Your task to perform on an android device: Set the phone to "Do not disturb". Image 0: 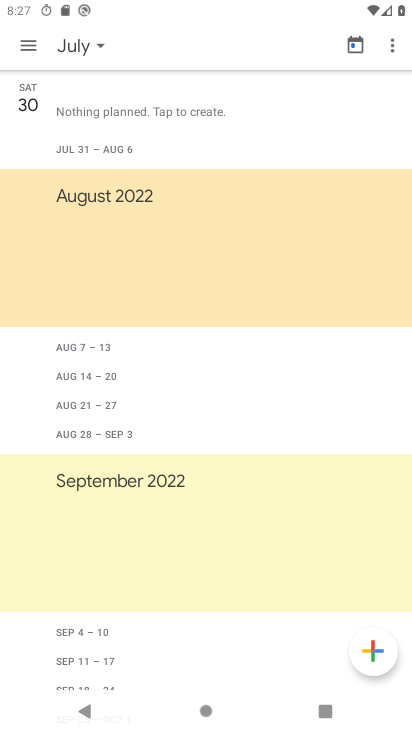
Step 0: press home button
Your task to perform on an android device: Set the phone to "Do not disturb". Image 1: 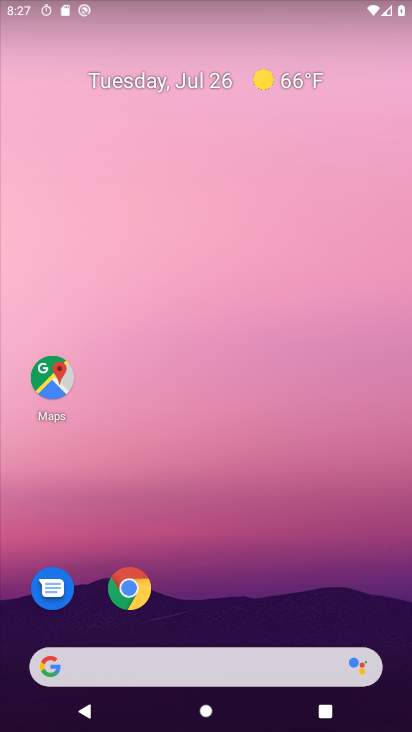
Step 1: drag from (235, 709) to (204, 176)
Your task to perform on an android device: Set the phone to "Do not disturb". Image 2: 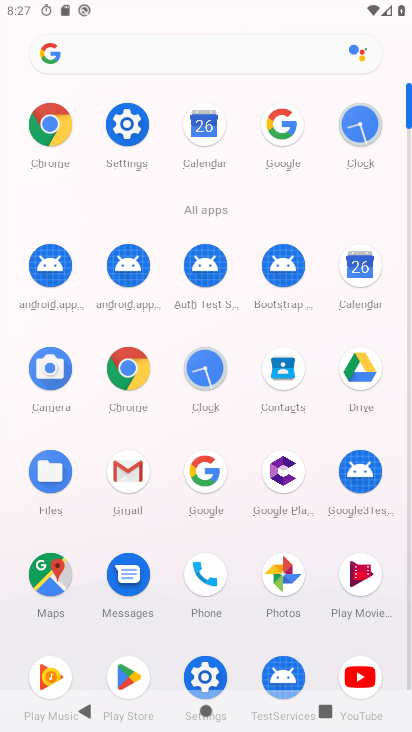
Step 2: click (117, 124)
Your task to perform on an android device: Set the phone to "Do not disturb". Image 3: 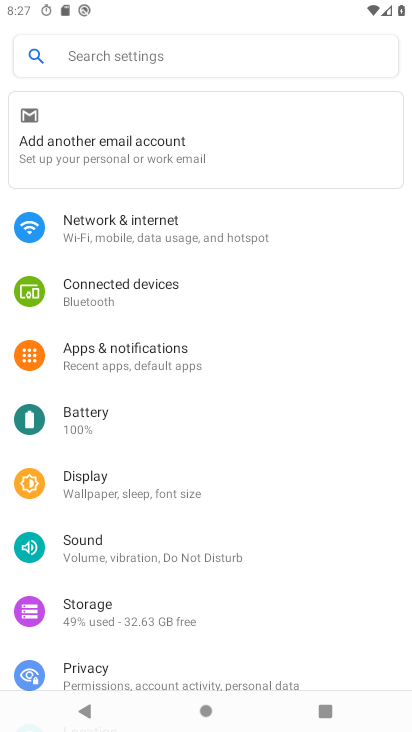
Step 3: click (134, 556)
Your task to perform on an android device: Set the phone to "Do not disturb". Image 4: 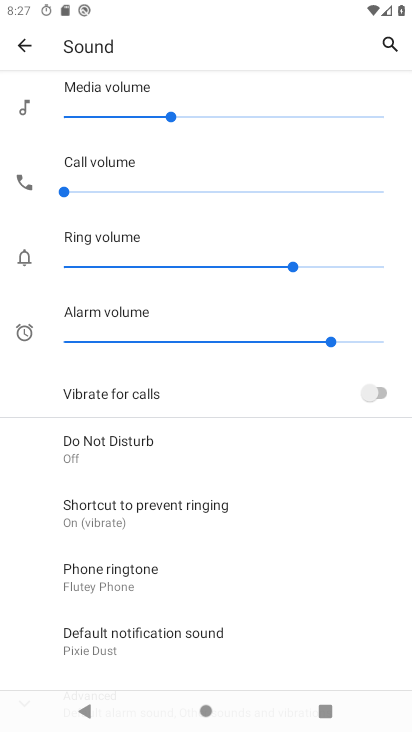
Step 4: click (77, 455)
Your task to perform on an android device: Set the phone to "Do not disturb". Image 5: 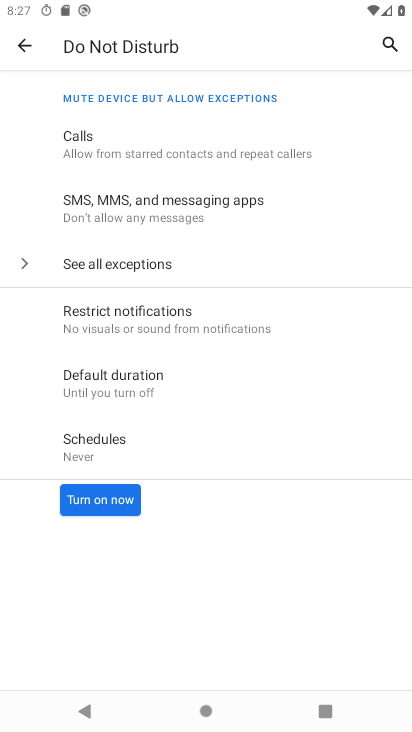
Step 5: click (91, 499)
Your task to perform on an android device: Set the phone to "Do not disturb". Image 6: 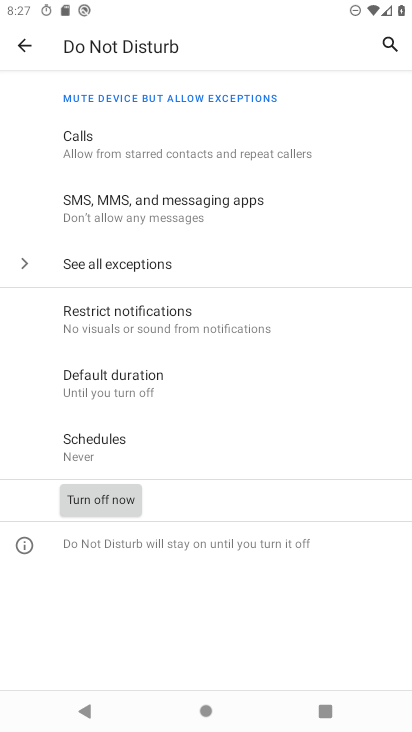
Step 6: task complete